Your task to perform on an android device: open app "Google Home" Image 0: 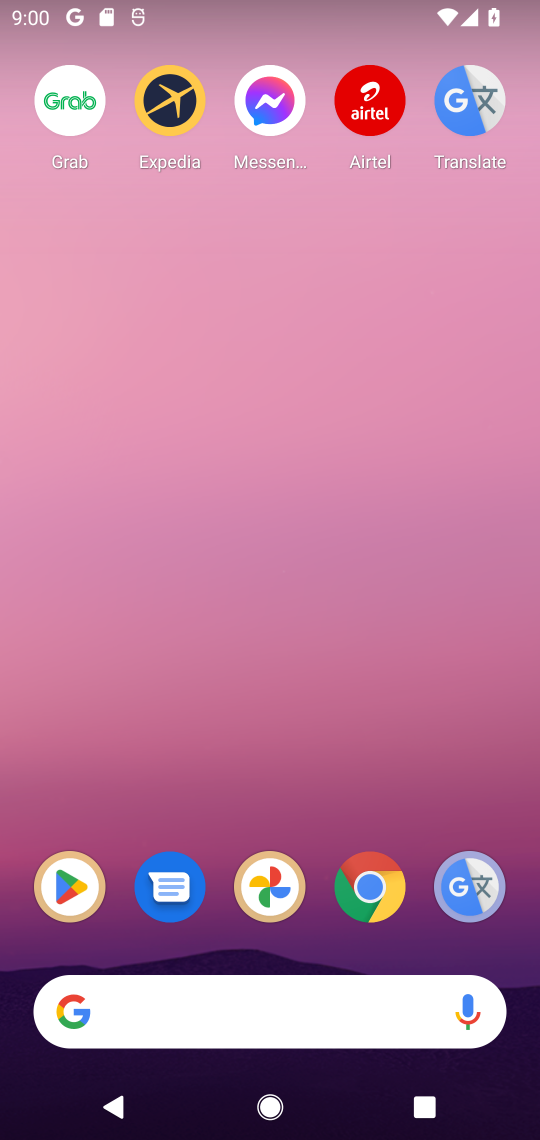
Step 0: click (77, 875)
Your task to perform on an android device: open app "Google Home" Image 1: 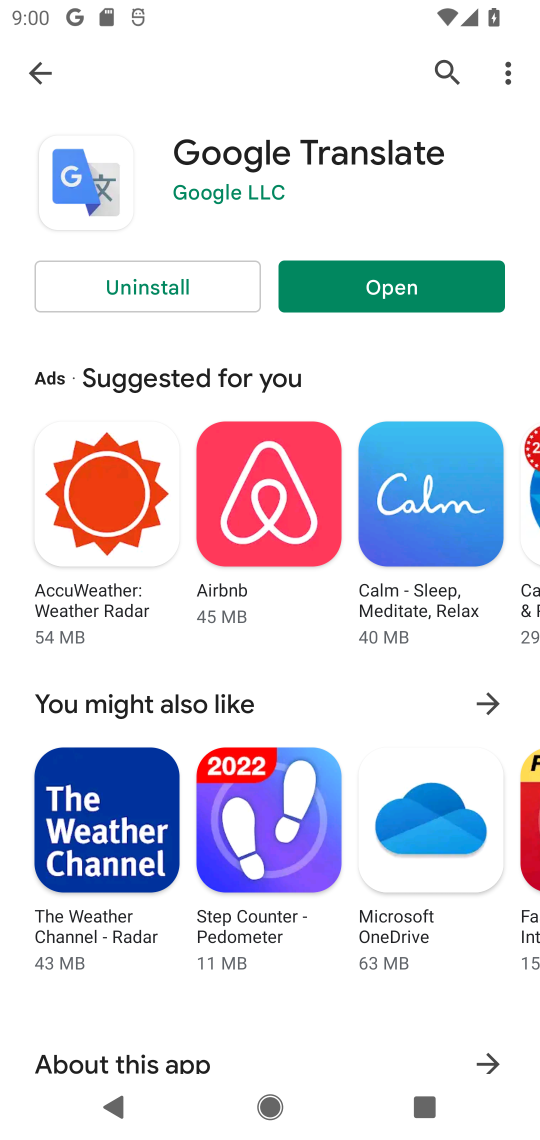
Step 1: click (461, 69)
Your task to perform on an android device: open app "Google Home" Image 2: 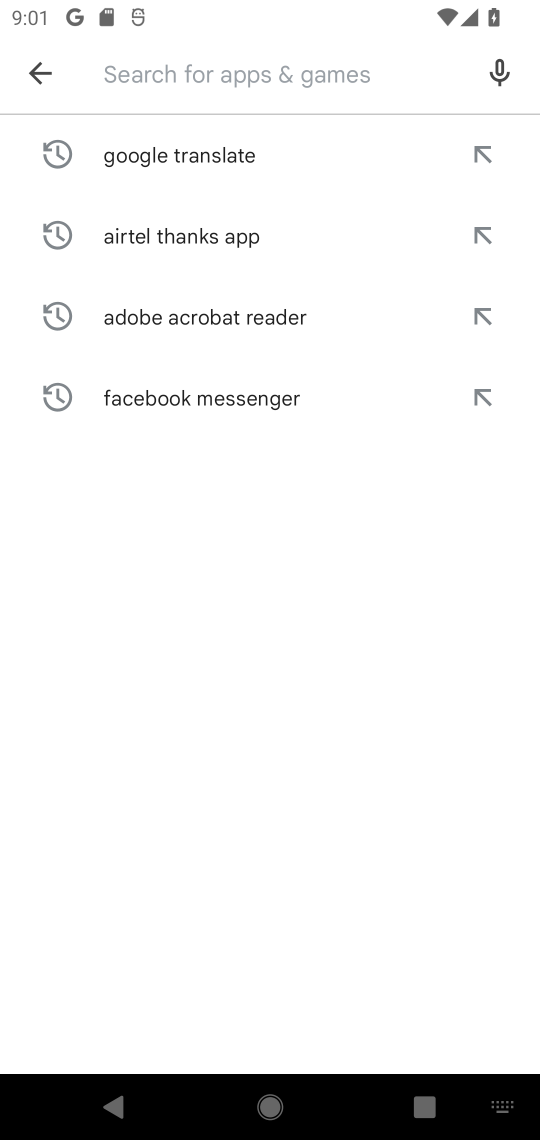
Step 2: type "google home"
Your task to perform on an android device: open app "Google Home" Image 3: 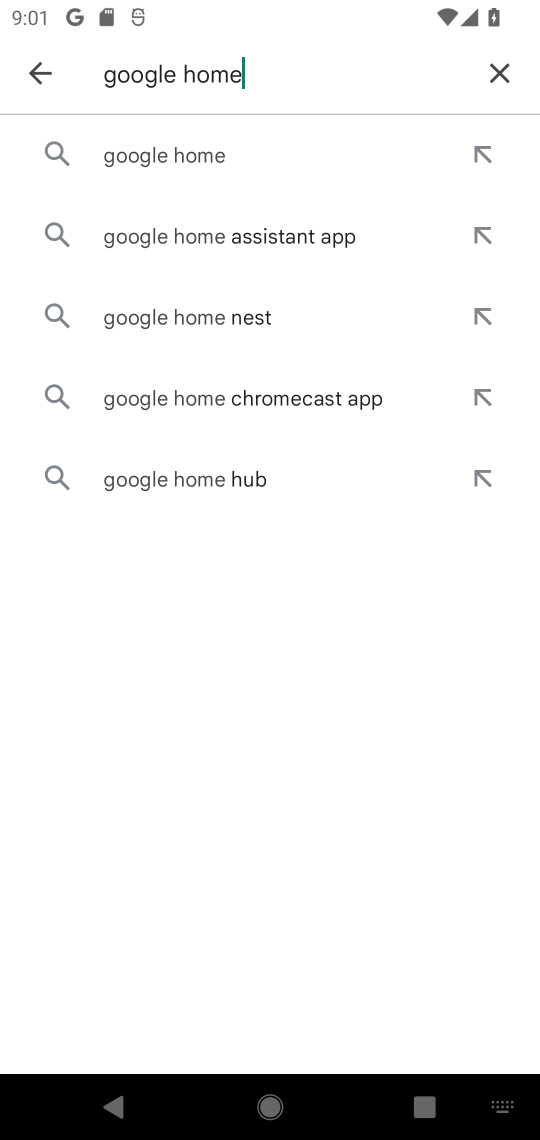
Step 3: click (310, 158)
Your task to perform on an android device: open app "Google Home" Image 4: 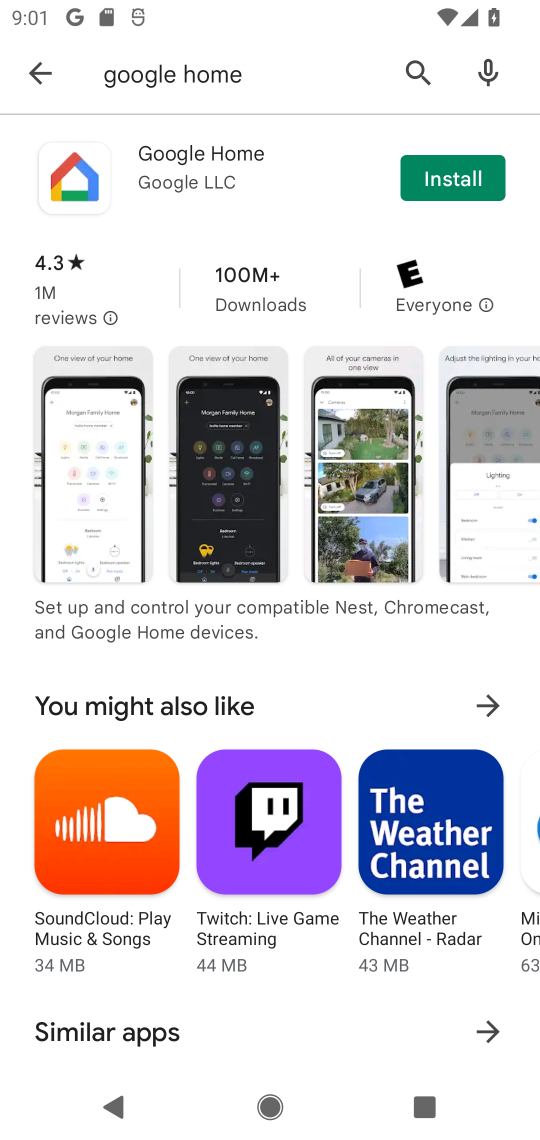
Step 4: click (234, 154)
Your task to perform on an android device: open app "Google Home" Image 5: 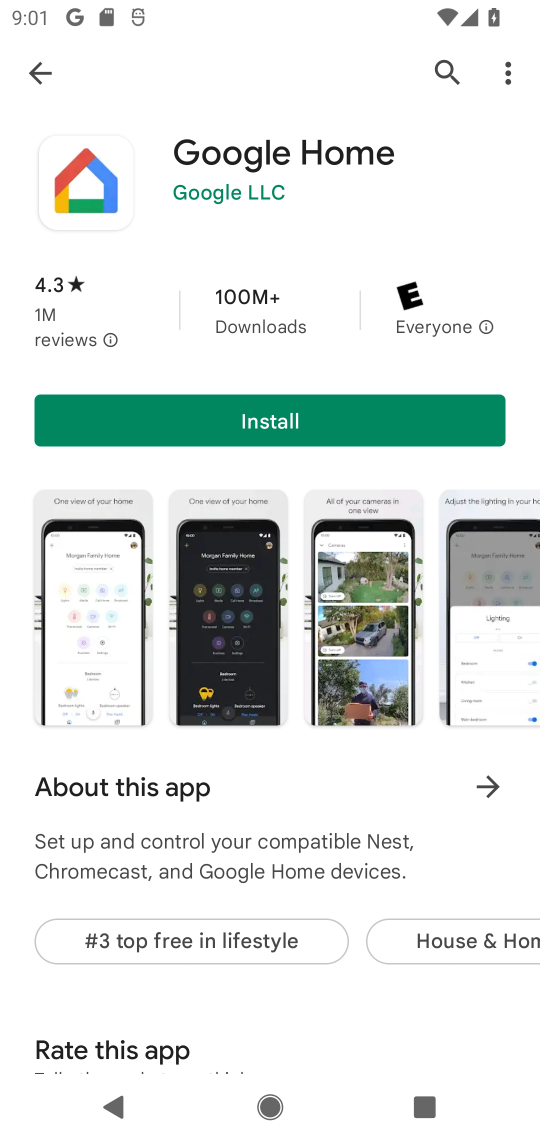
Step 5: task complete